Your task to perform on an android device: turn off sleep mode Image 0: 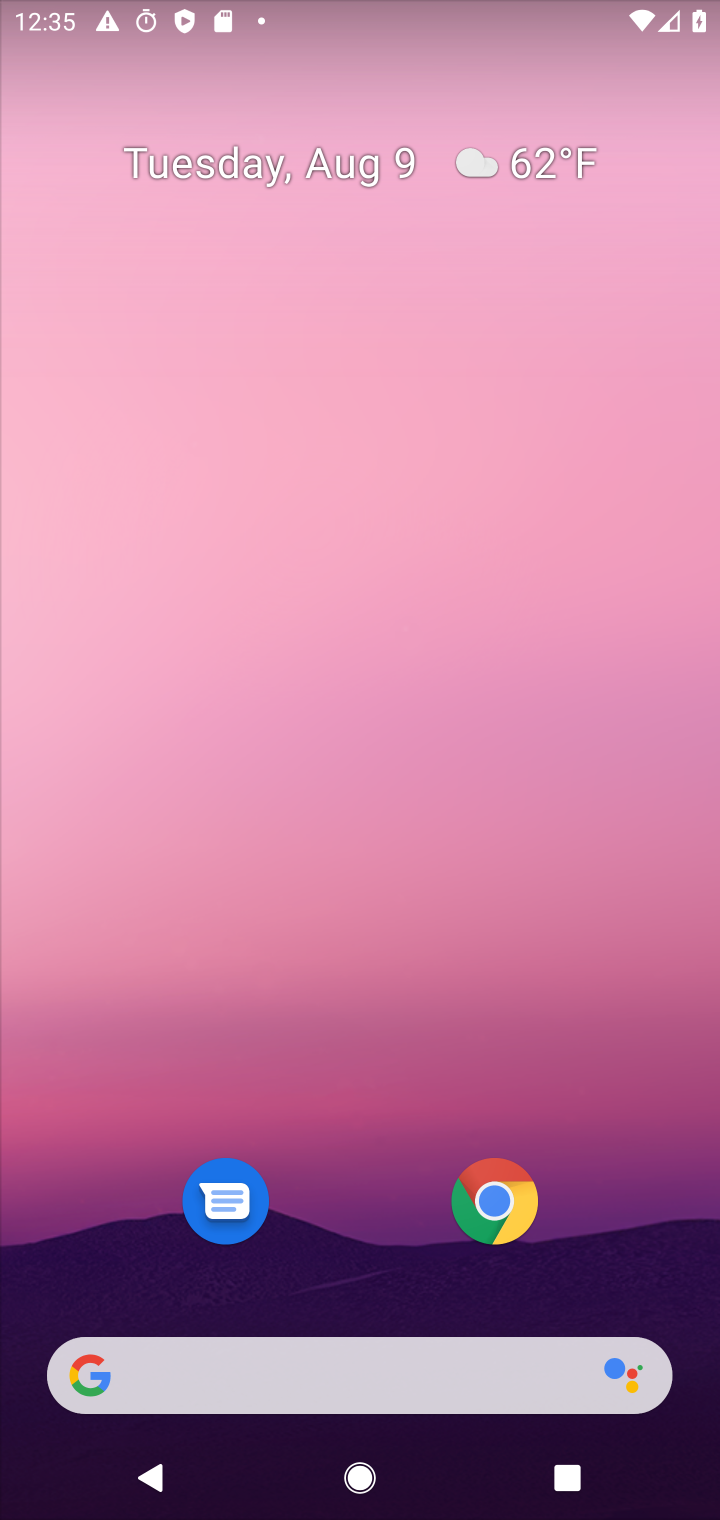
Step 0: drag from (327, 1075) to (546, 0)
Your task to perform on an android device: turn off sleep mode Image 1: 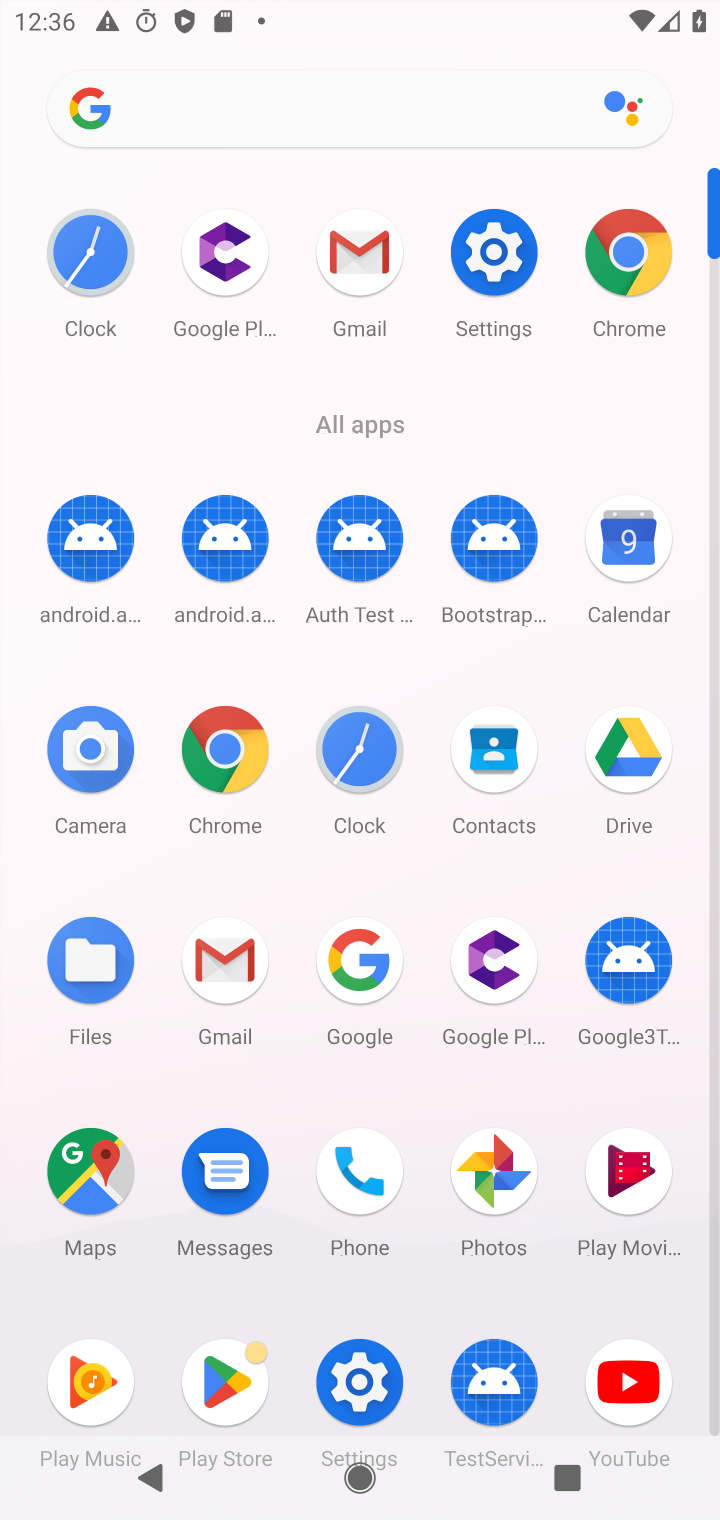
Step 1: click (490, 280)
Your task to perform on an android device: turn off sleep mode Image 2: 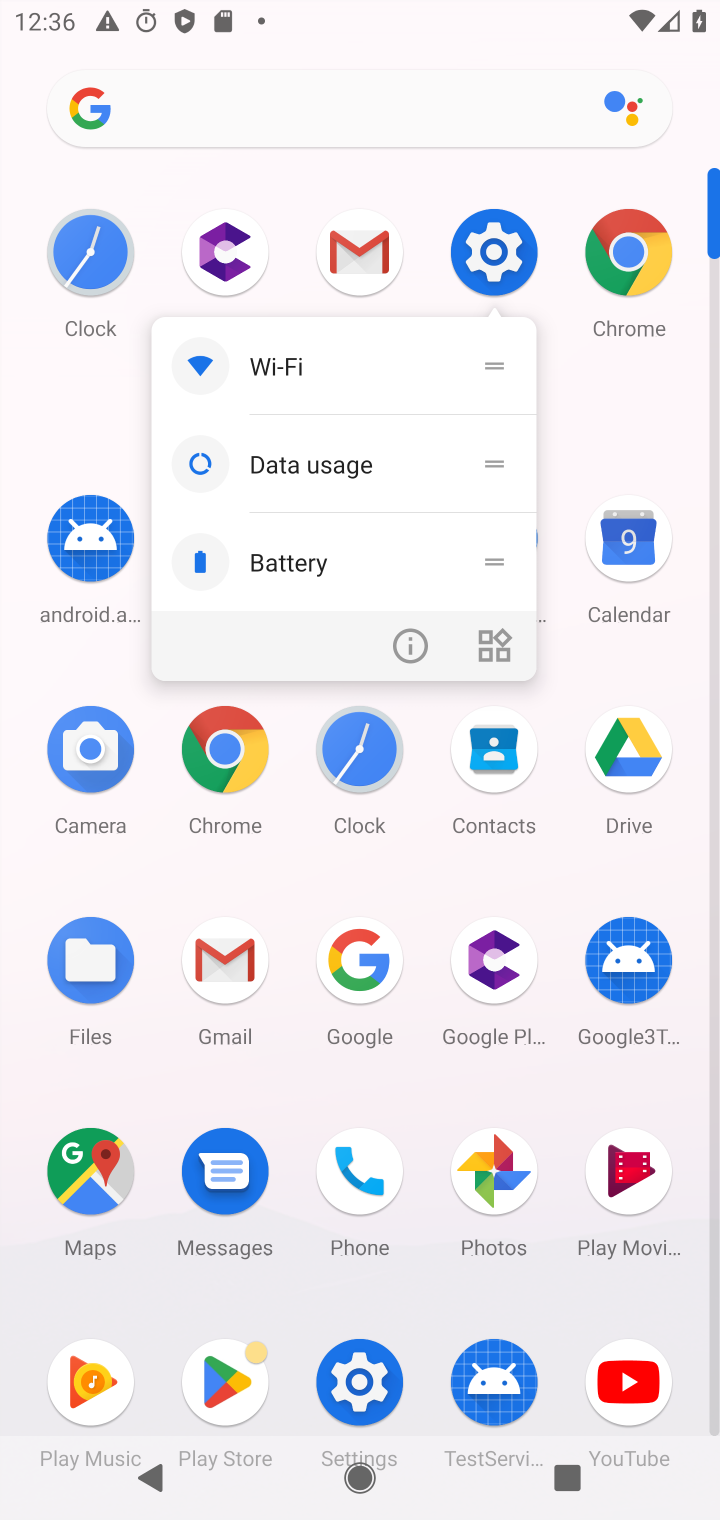
Step 2: click (500, 249)
Your task to perform on an android device: turn off sleep mode Image 3: 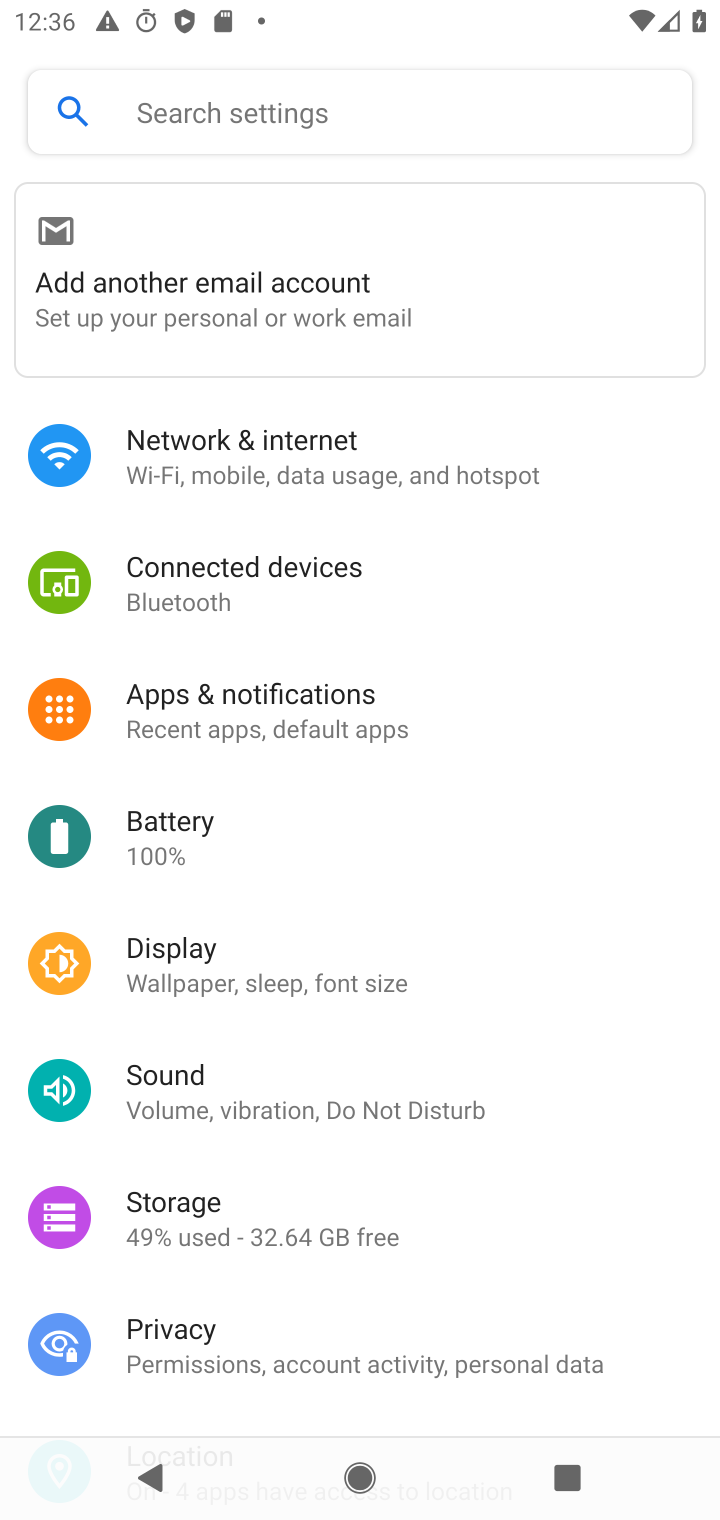
Step 3: click (389, 107)
Your task to perform on an android device: turn off sleep mode Image 4: 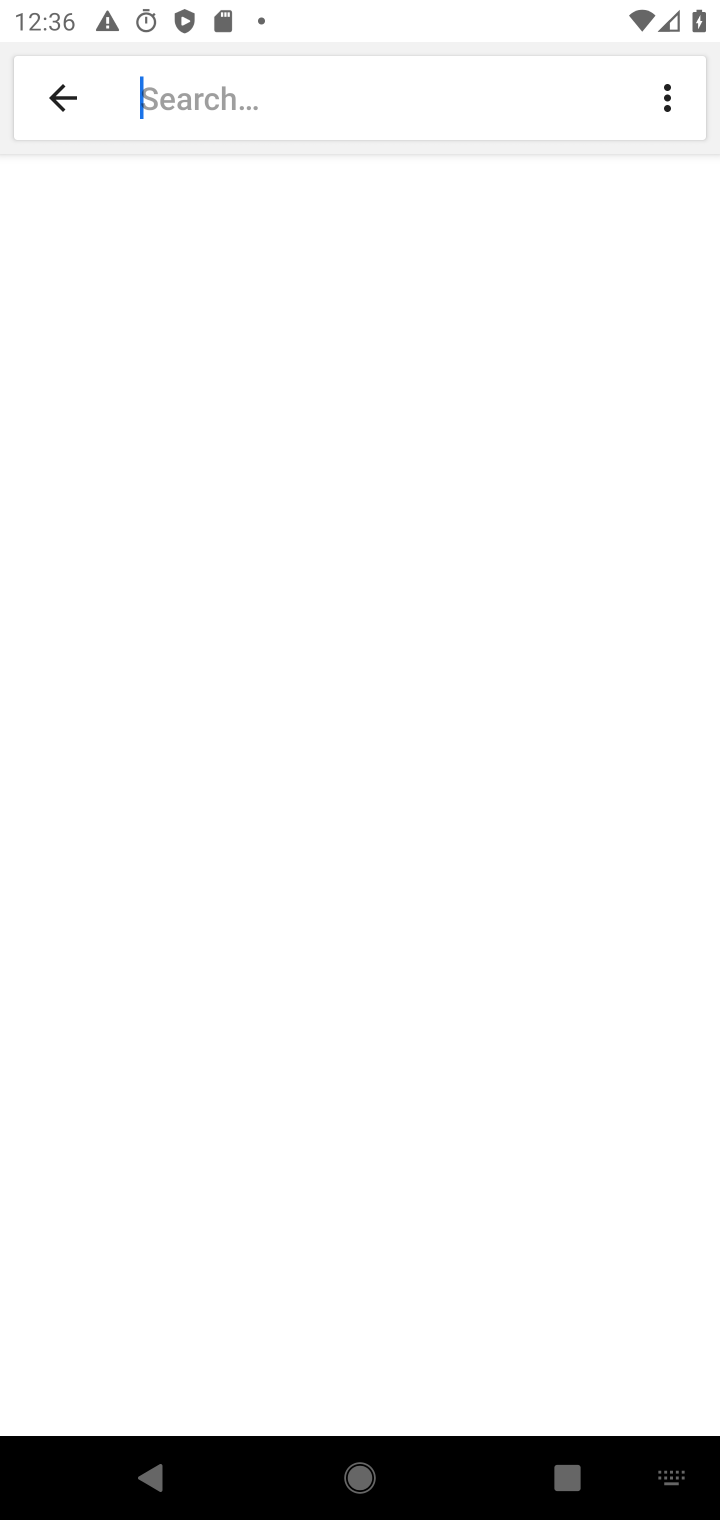
Step 4: type "sleep mode"
Your task to perform on an android device: turn off sleep mode Image 5: 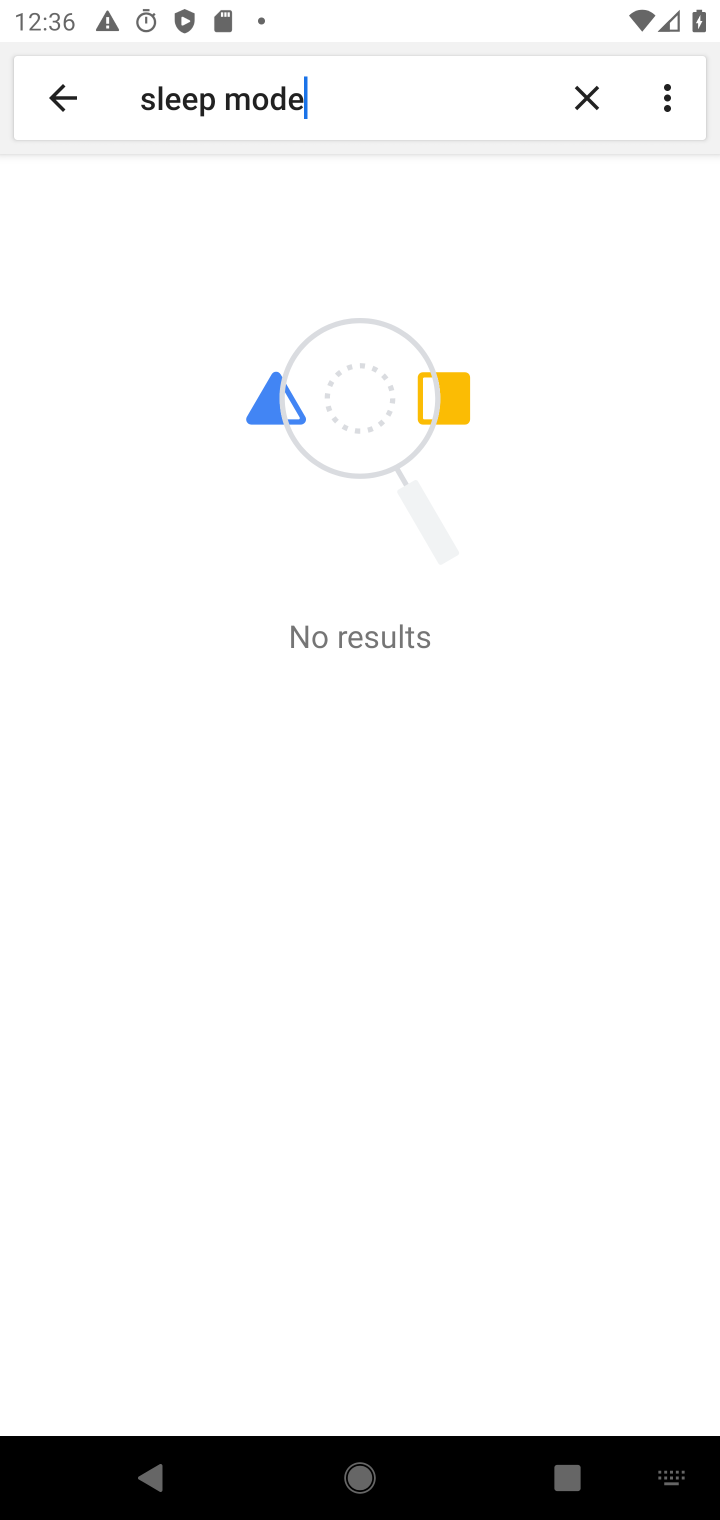
Step 5: task complete